Your task to perform on an android device: Go to location settings Image 0: 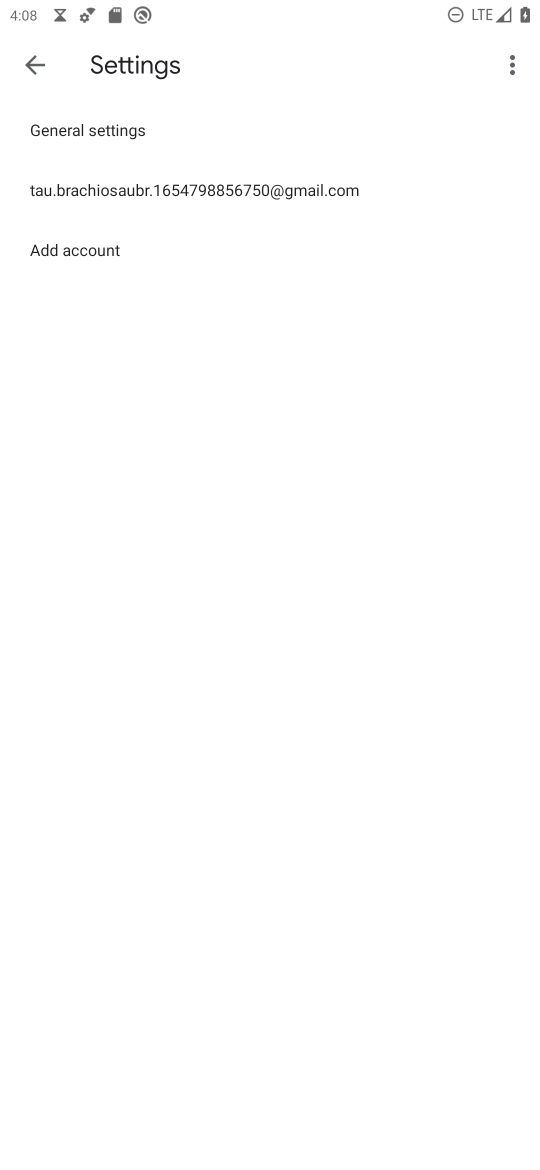
Step 0: press home button
Your task to perform on an android device: Go to location settings Image 1: 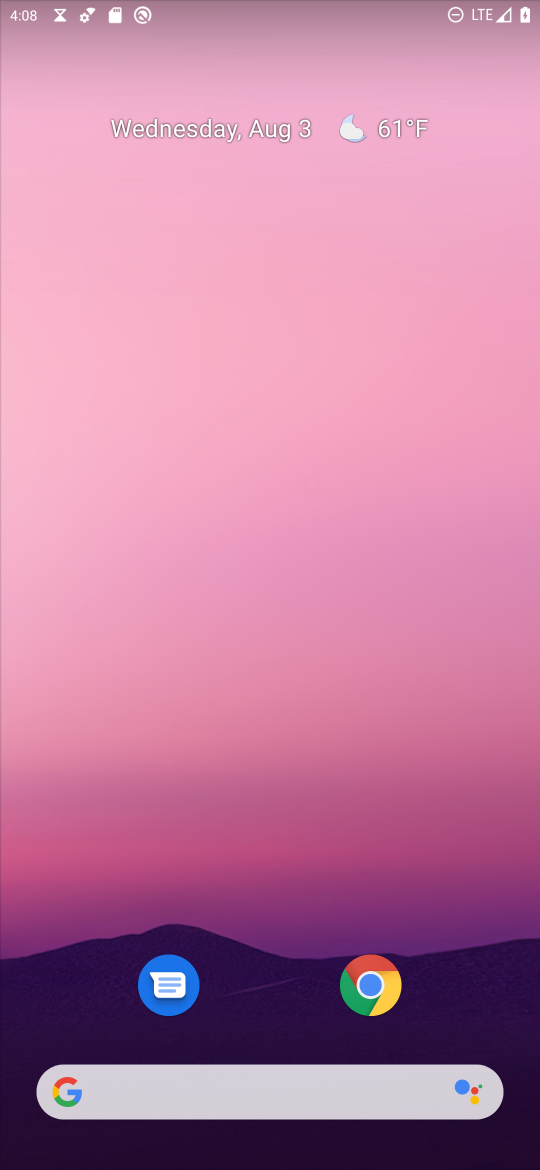
Step 1: drag from (279, 963) to (301, 148)
Your task to perform on an android device: Go to location settings Image 2: 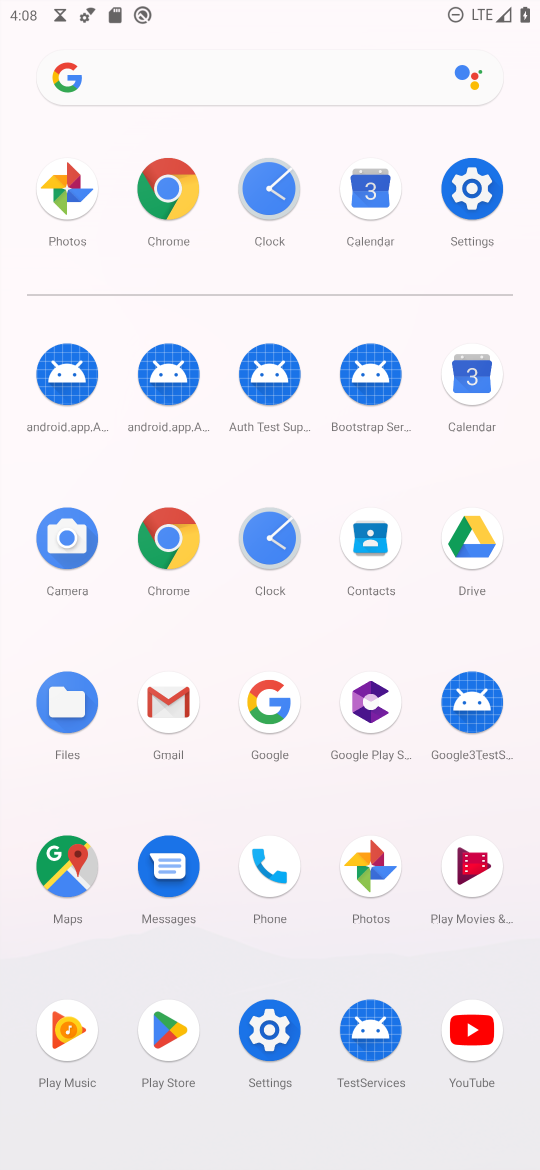
Step 2: click (474, 198)
Your task to perform on an android device: Go to location settings Image 3: 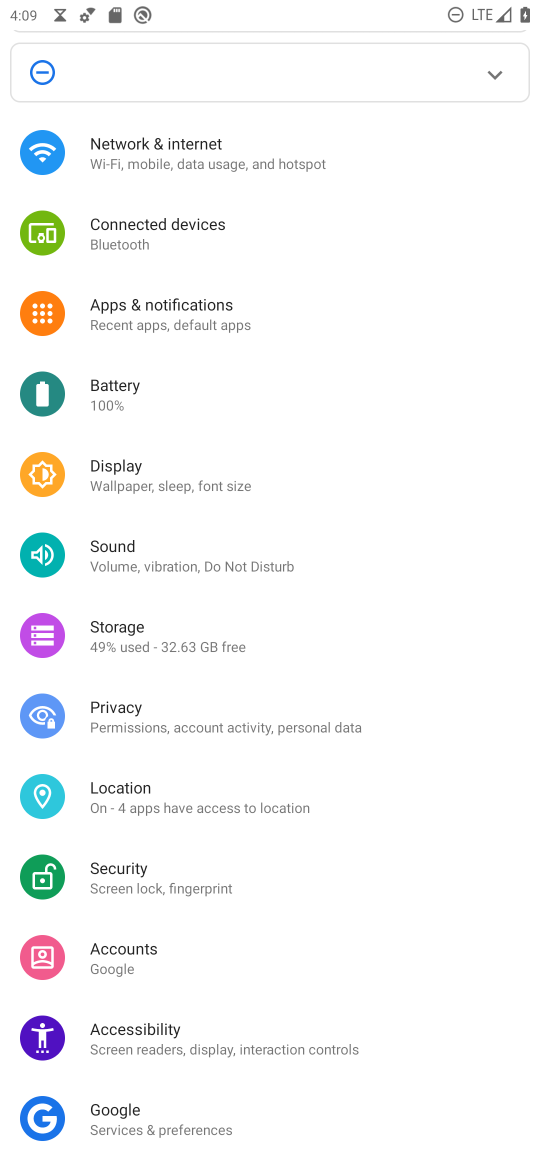
Step 3: click (145, 791)
Your task to perform on an android device: Go to location settings Image 4: 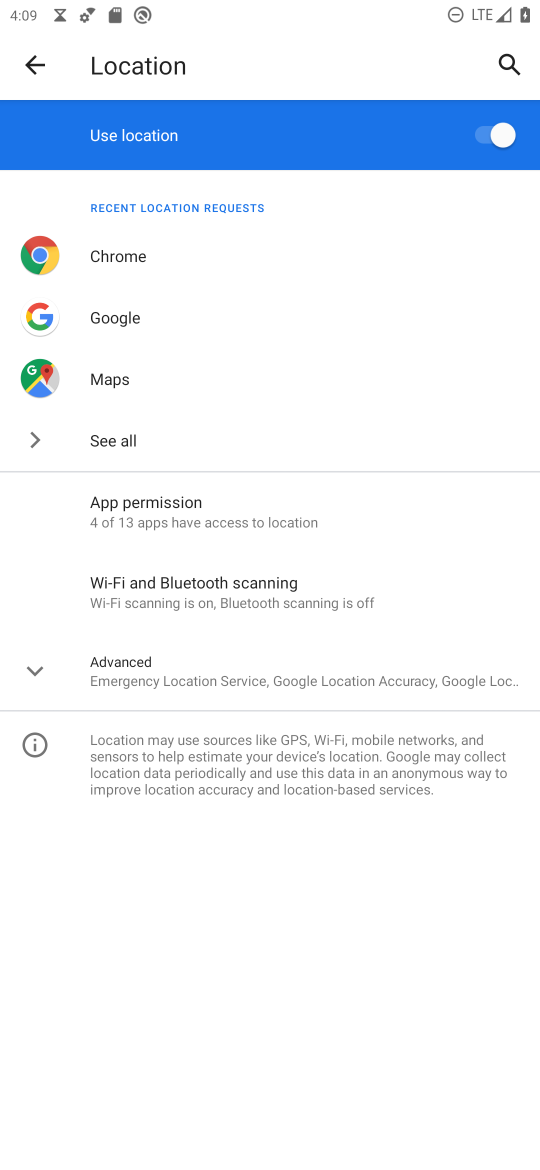
Step 4: task complete